Your task to perform on an android device: set default search engine in the chrome app Image 0: 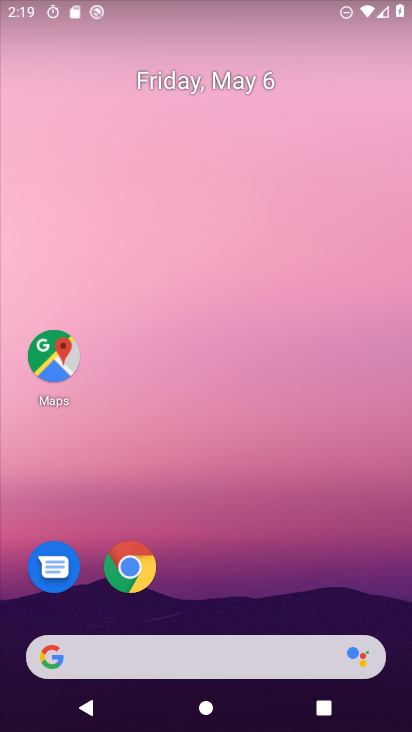
Step 0: drag from (267, 690) to (299, 189)
Your task to perform on an android device: set default search engine in the chrome app Image 1: 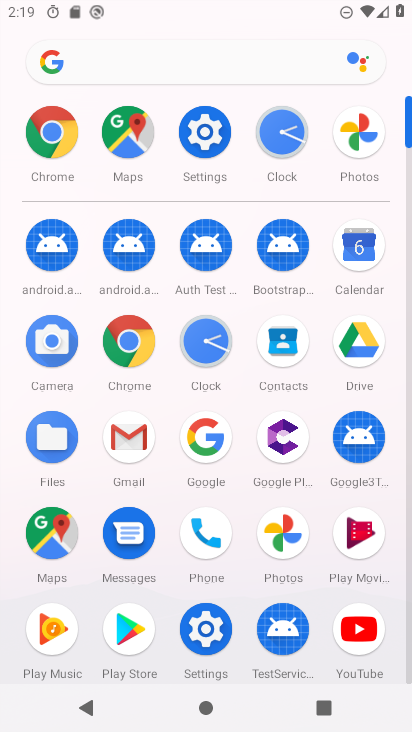
Step 1: click (64, 136)
Your task to perform on an android device: set default search engine in the chrome app Image 2: 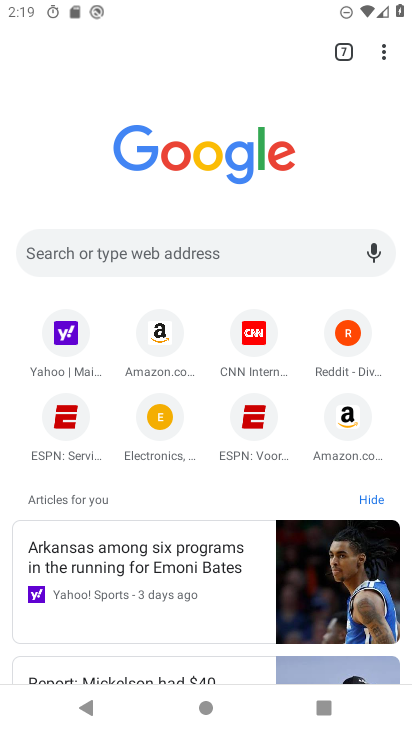
Step 2: click (379, 65)
Your task to perform on an android device: set default search engine in the chrome app Image 3: 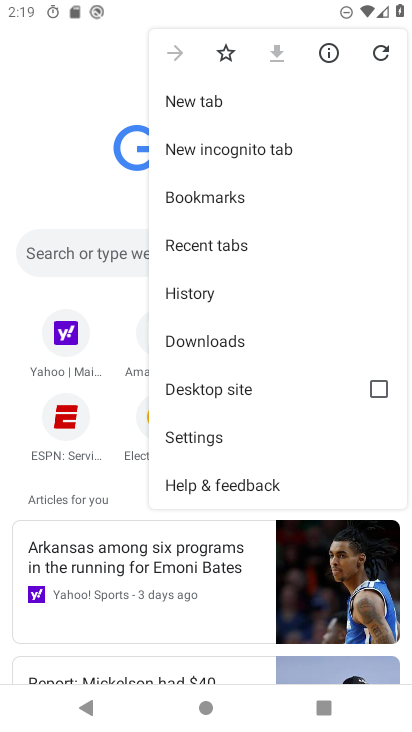
Step 3: click (196, 438)
Your task to perform on an android device: set default search engine in the chrome app Image 4: 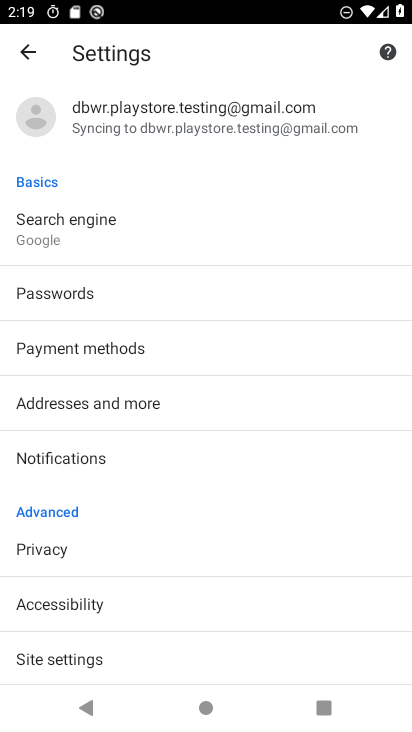
Step 4: click (154, 251)
Your task to perform on an android device: set default search engine in the chrome app Image 5: 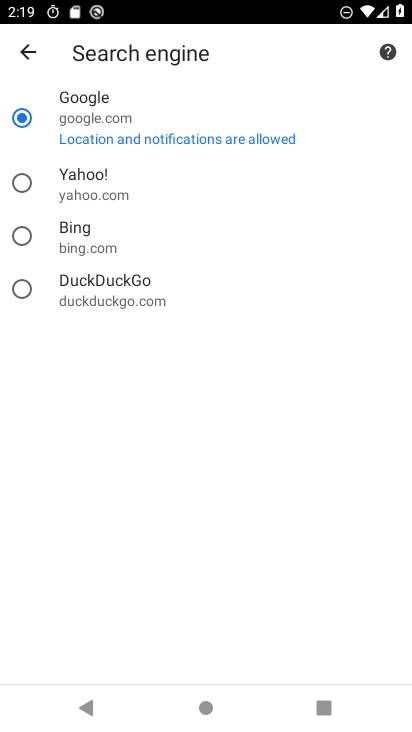
Step 5: task complete